Your task to perform on an android device: see sites visited before in the chrome app Image 0: 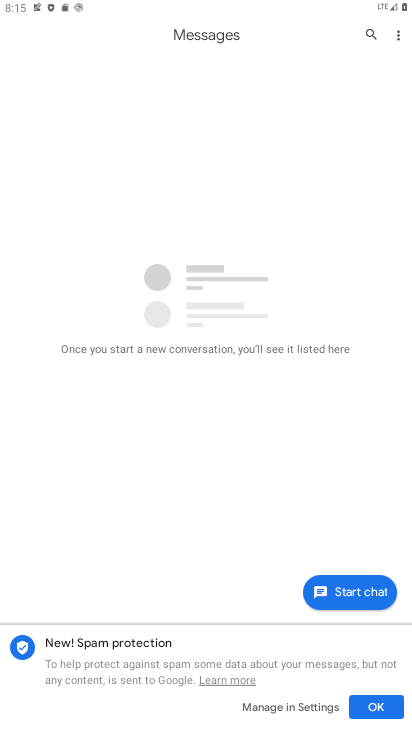
Step 0: press home button
Your task to perform on an android device: see sites visited before in the chrome app Image 1: 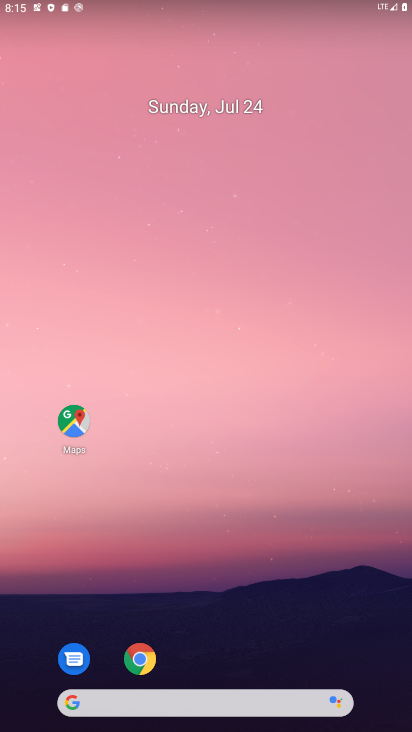
Step 1: drag from (200, 726) to (242, 282)
Your task to perform on an android device: see sites visited before in the chrome app Image 2: 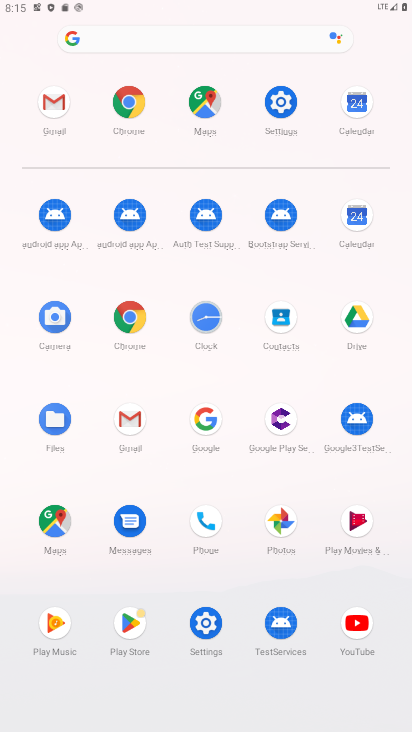
Step 2: click (132, 317)
Your task to perform on an android device: see sites visited before in the chrome app Image 3: 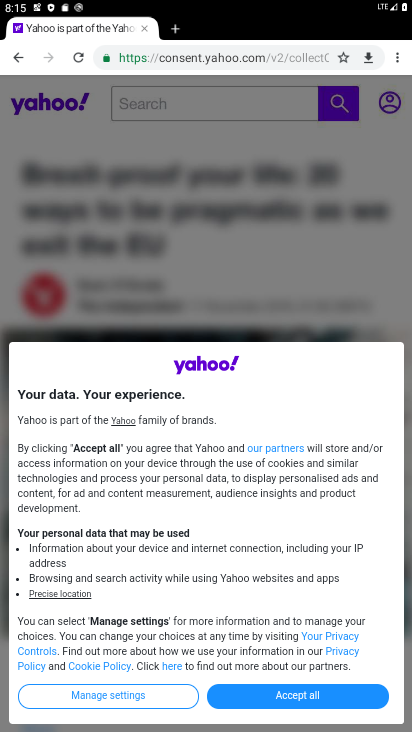
Step 3: click (397, 60)
Your task to perform on an android device: see sites visited before in the chrome app Image 4: 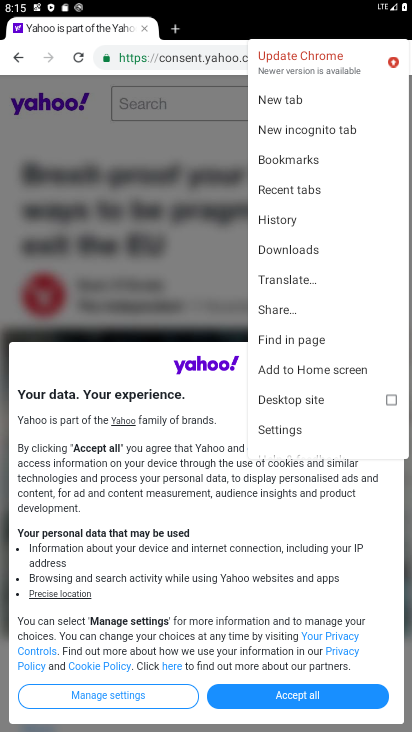
Step 4: click (275, 219)
Your task to perform on an android device: see sites visited before in the chrome app Image 5: 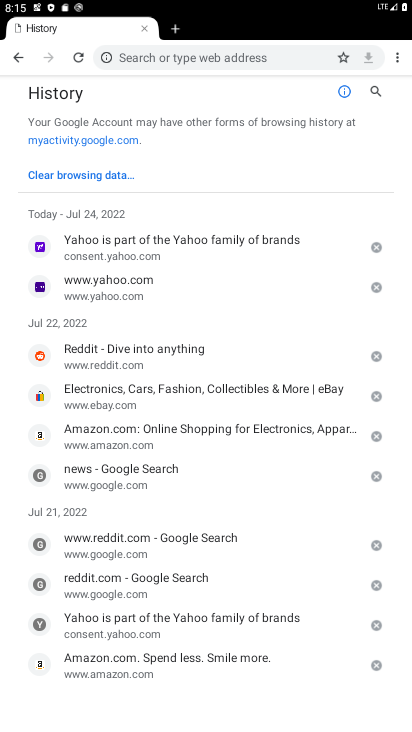
Step 5: task complete